Your task to perform on an android device: Turn on the flashlight Image 0: 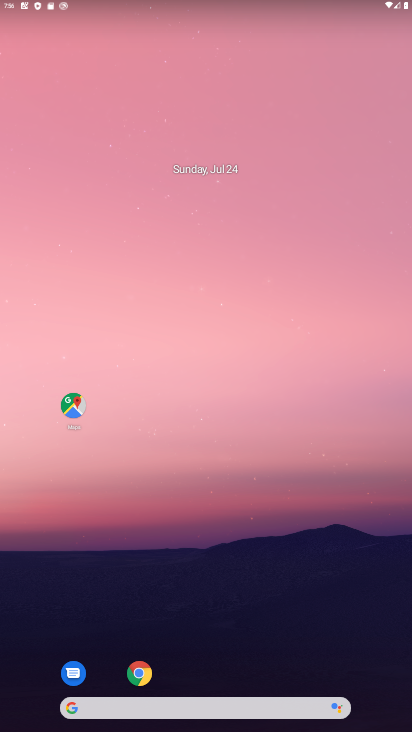
Step 0: drag from (177, 630) to (264, 131)
Your task to perform on an android device: Turn on the flashlight Image 1: 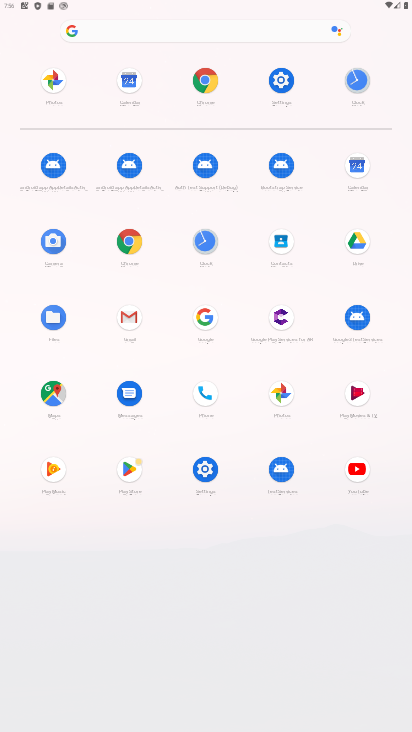
Step 1: click (201, 472)
Your task to perform on an android device: Turn on the flashlight Image 2: 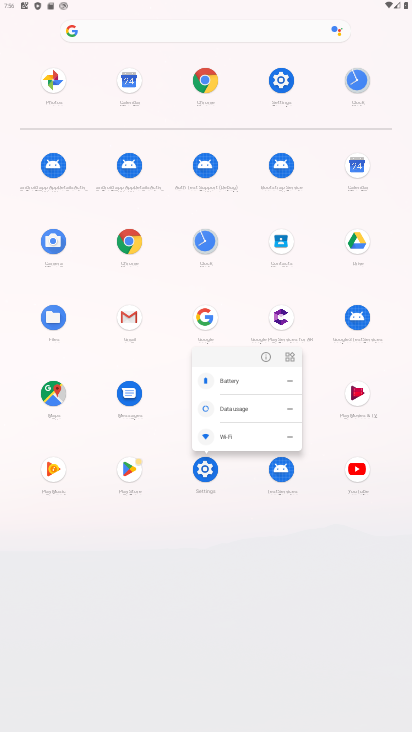
Step 2: click (257, 346)
Your task to perform on an android device: Turn on the flashlight Image 3: 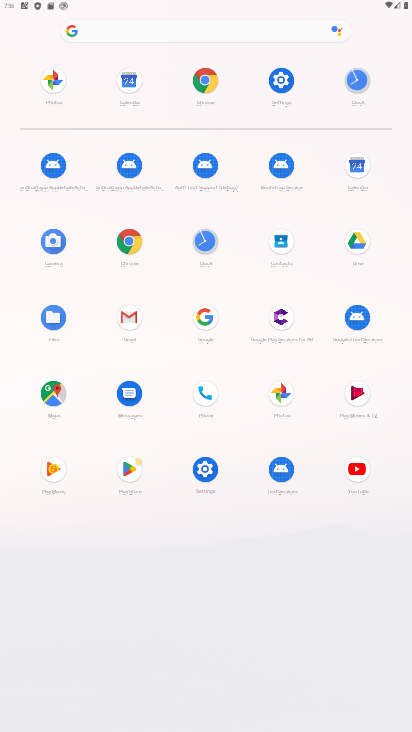
Step 3: click (198, 477)
Your task to perform on an android device: Turn on the flashlight Image 4: 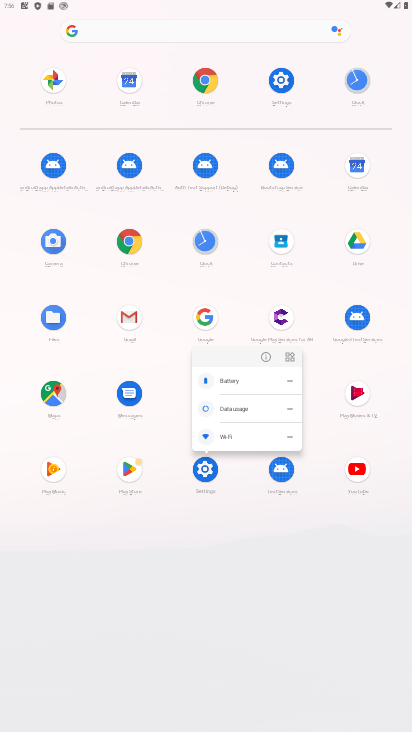
Step 4: click (260, 362)
Your task to perform on an android device: Turn on the flashlight Image 5: 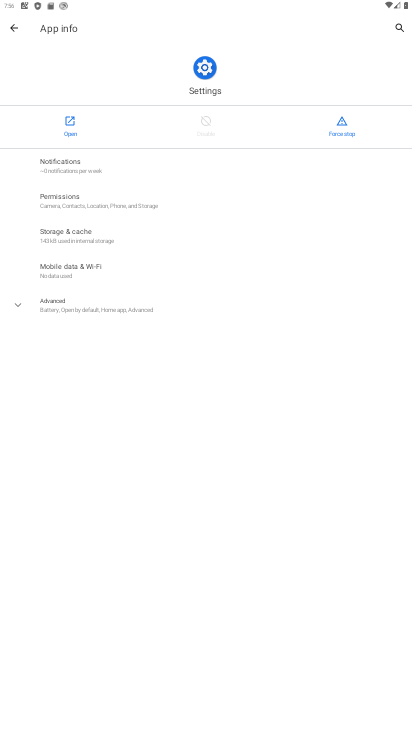
Step 5: click (70, 127)
Your task to perform on an android device: Turn on the flashlight Image 6: 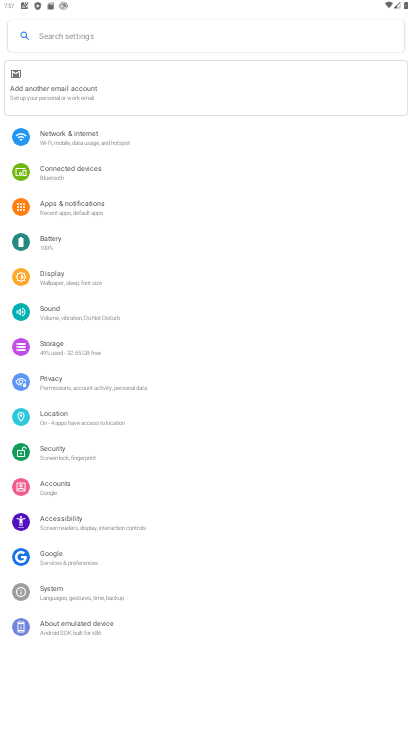
Step 6: click (97, 42)
Your task to perform on an android device: Turn on the flashlight Image 7: 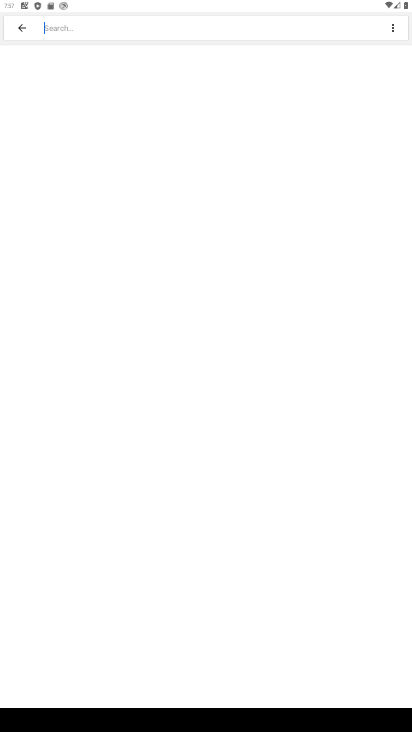
Step 7: type "flashlight"
Your task to perform on an android device: Turn on the flashlight Image 8: 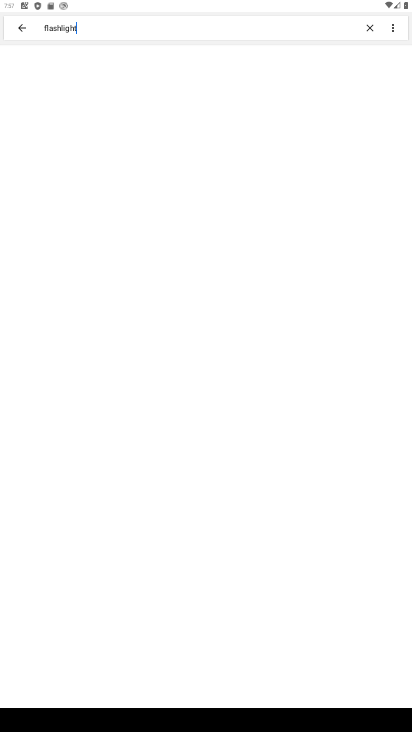
Step 8: type ""
Your task to perform on an android device: Turn on the flashlight Image 9: 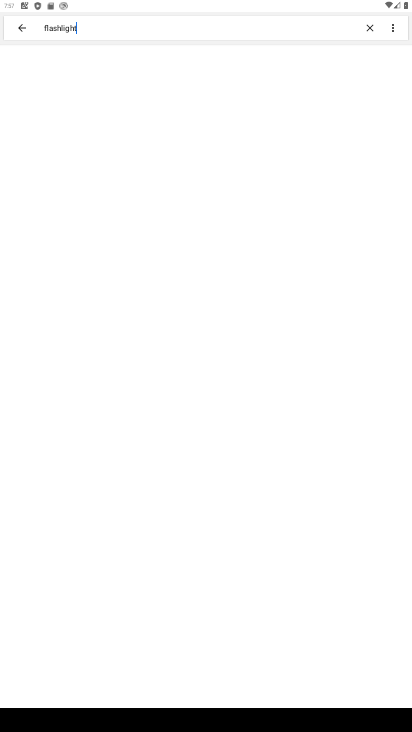
Step 9: click (70, 66)
Your task to perform on an android device: Turn on the flashlight Image 10: 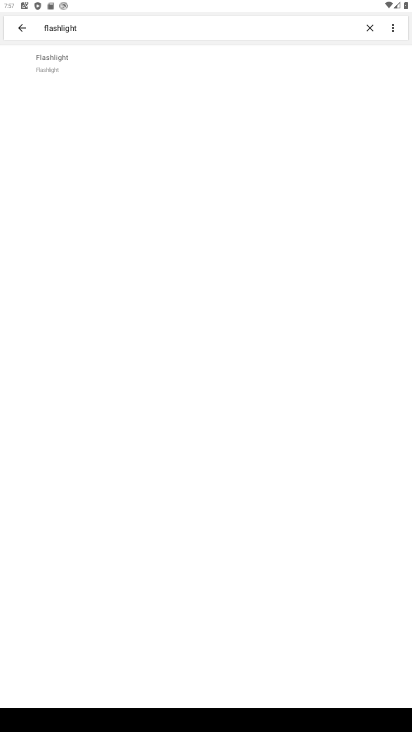
Step 10: click (70, 66)
Your task to perform on an android device: Turn on the flashlight Image 11: 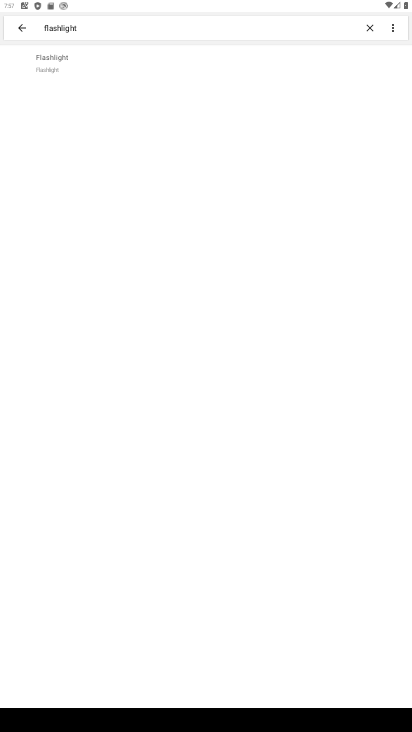
Step 11: task complete